Your task to perform on an android device: change text size in settings app Image 0: 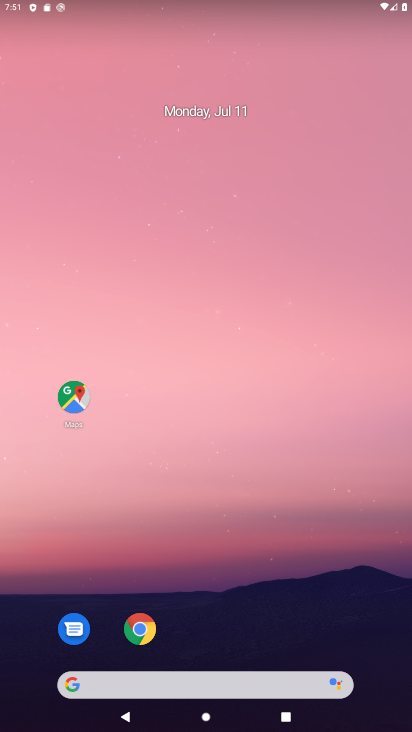
Step 0: drag from (218, 660) to (174, 129)
Your task to perform on an android device: change text size in settings app Image 1: 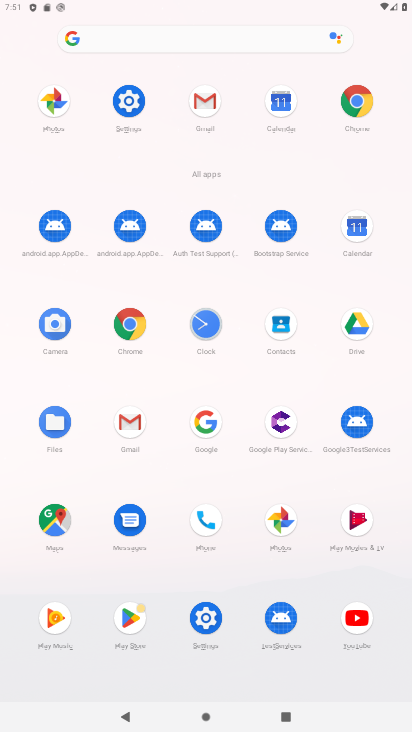
Step 1: click (134, 99)
Your task to perform on an android device: change text size in settings app Image 2: 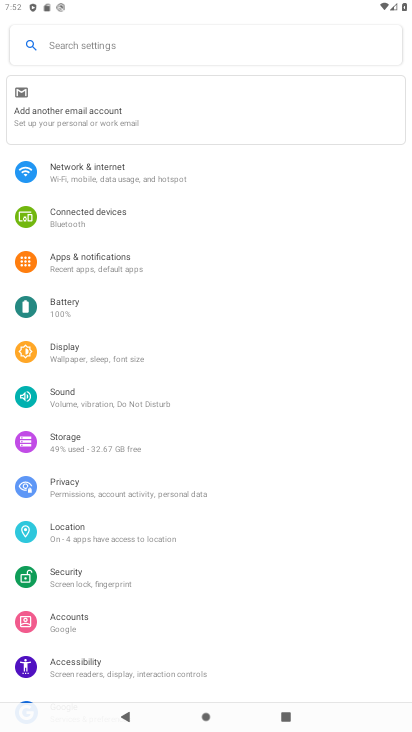
Step 2: click (53, 355)
Your task to perform on an android device: change text size in settings app Image 3: 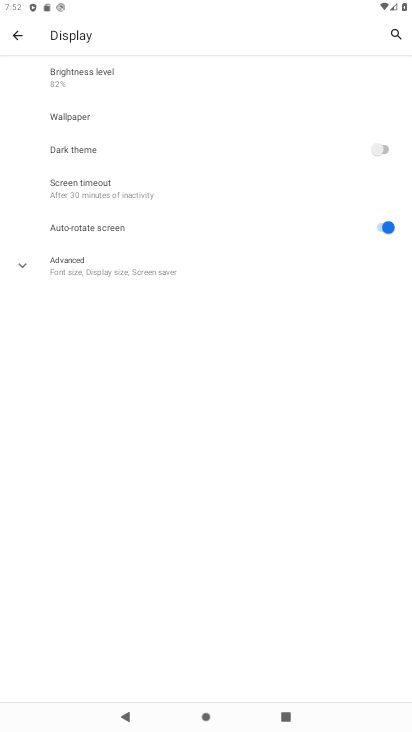
Step 3: click (96, 276)
Your task to perform on an android device: change text size in settings app Image 4: 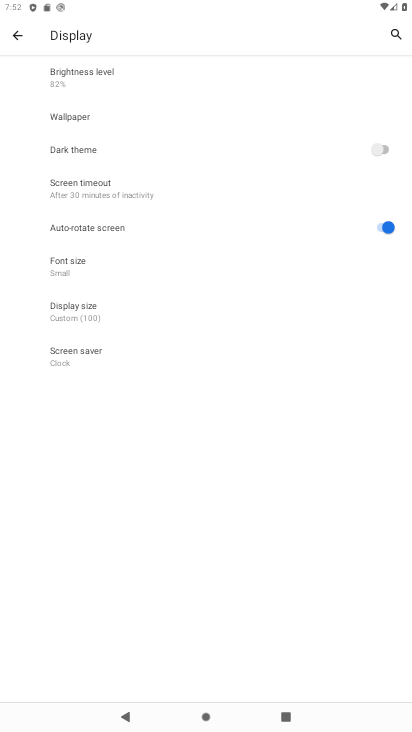
Step 4: click (61, 248)
Your task to perform on an android device: change text size in settings app Image 5: 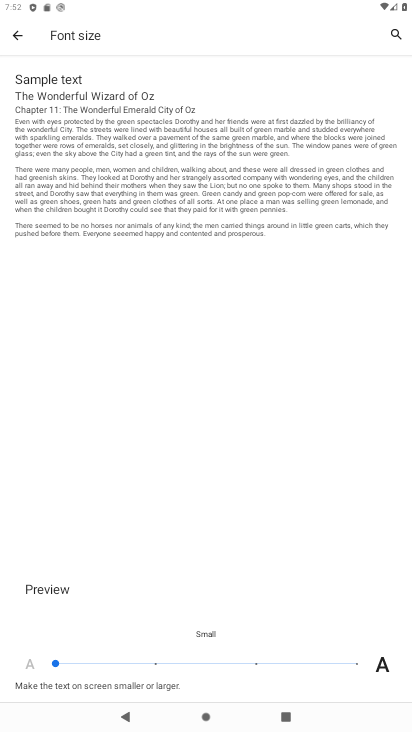
Step 5: click (157, 663)
Your task to perform on an android device: change text size in settings app Image 6: 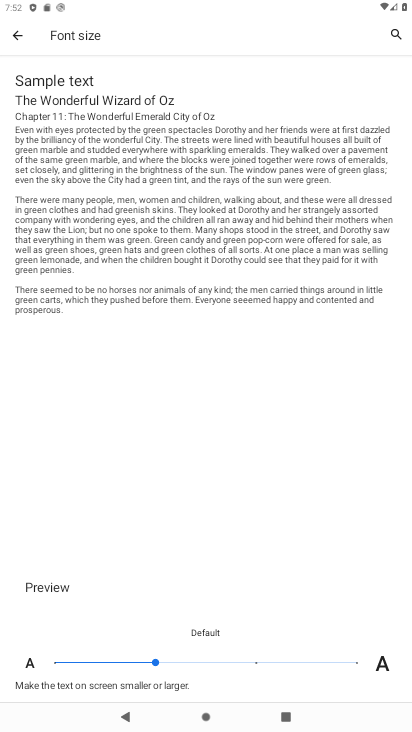
Step 6: task complete